Your task to perform on an android device: Go to internet settings Image 0: 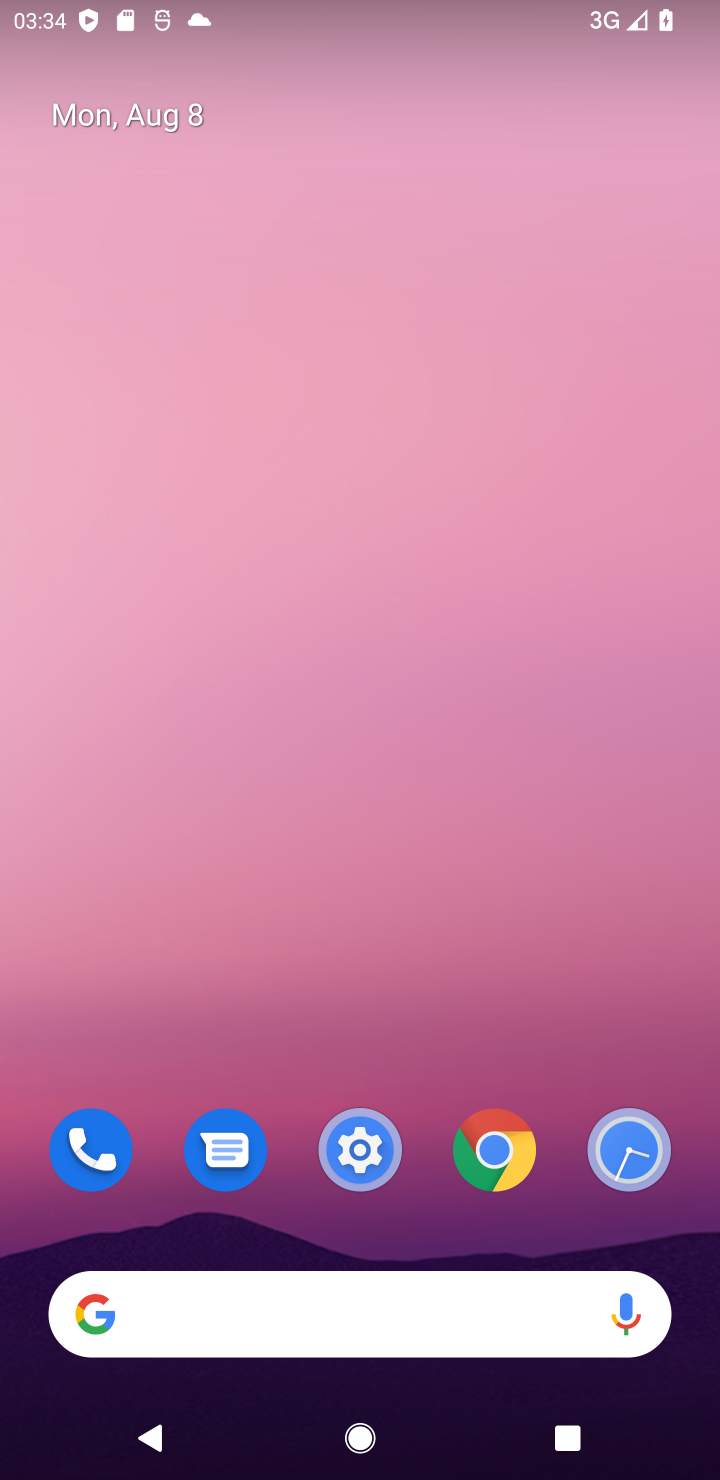
Step 0: click (380, 1177)
Your task to perform on an android device: Go to internet settings Image 1: 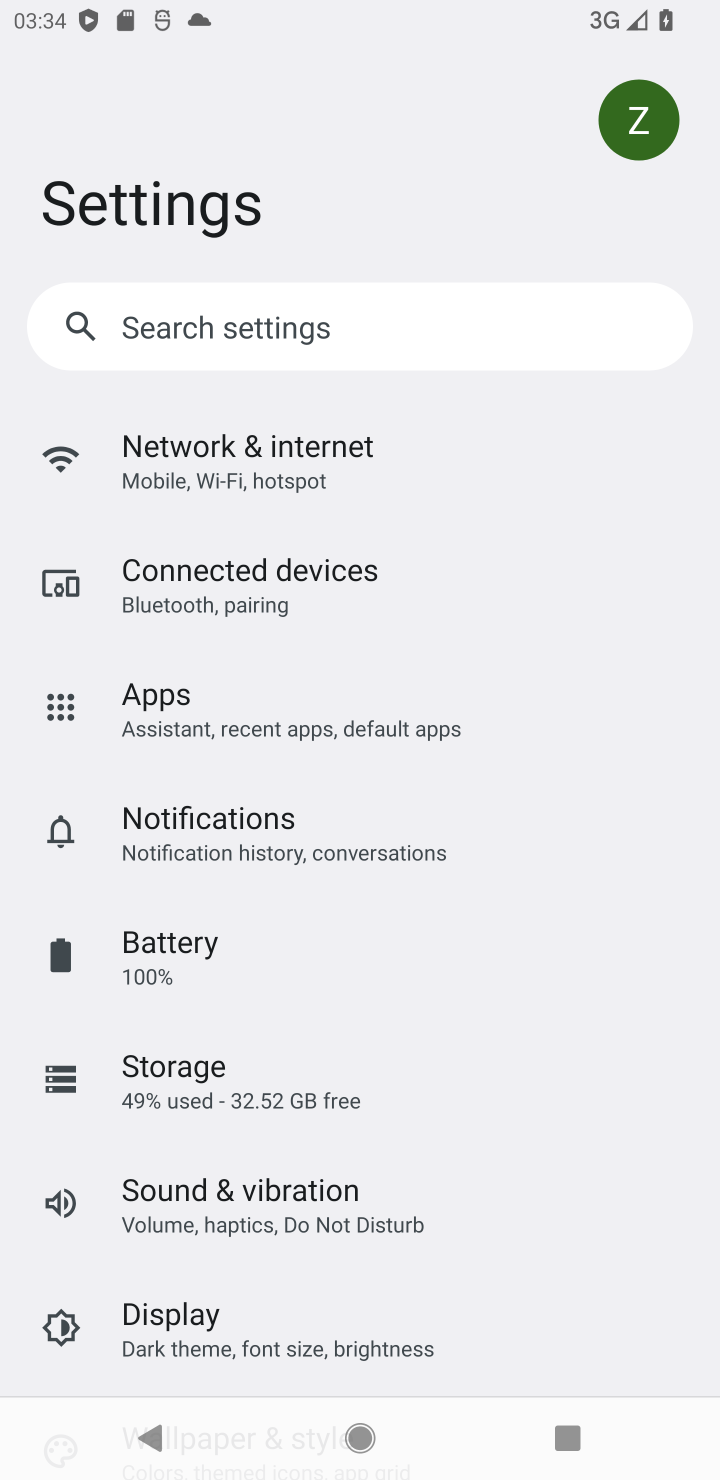
Step 1: click (243, 450)
Your task to perform on an android device: Go to internet settings Image 2: 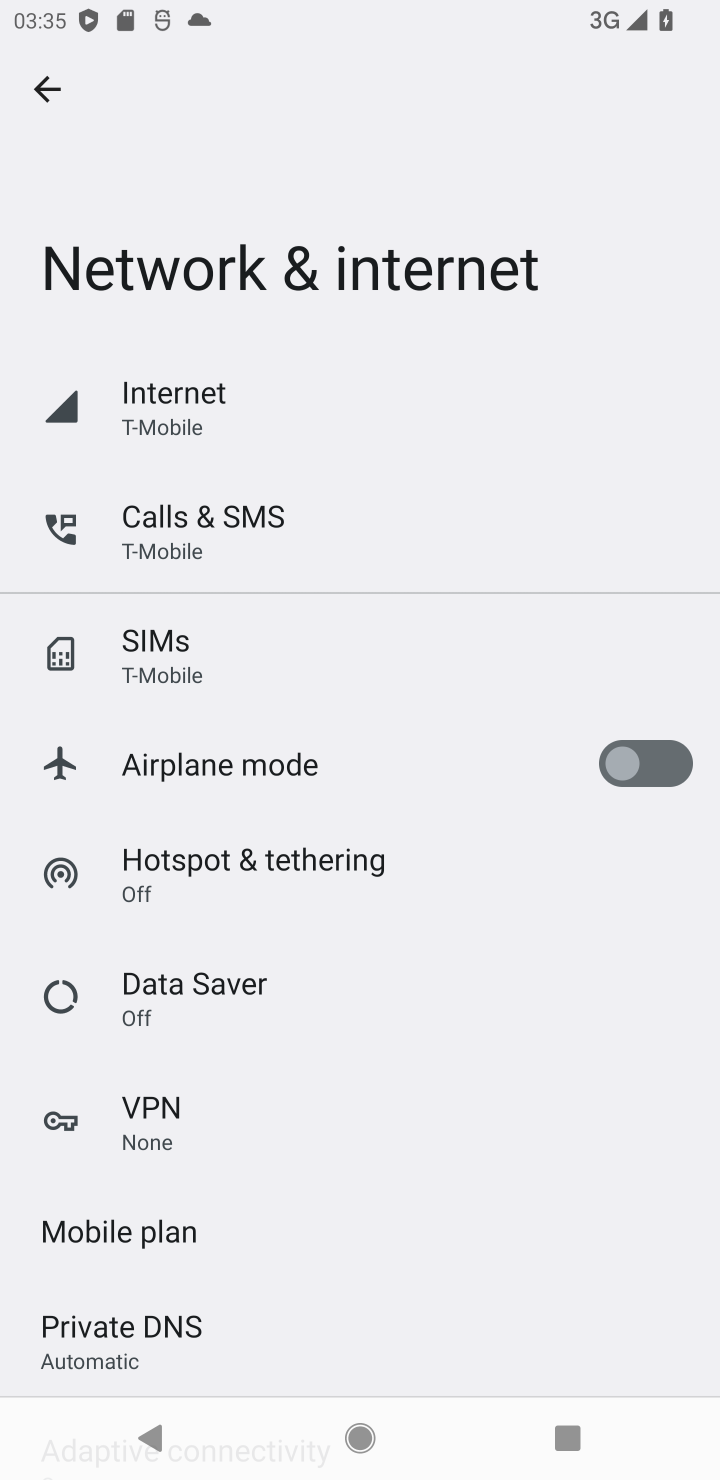
Step 2: click (227, 393)
Your task to perform on an android device: Go to internet settings Image 3: 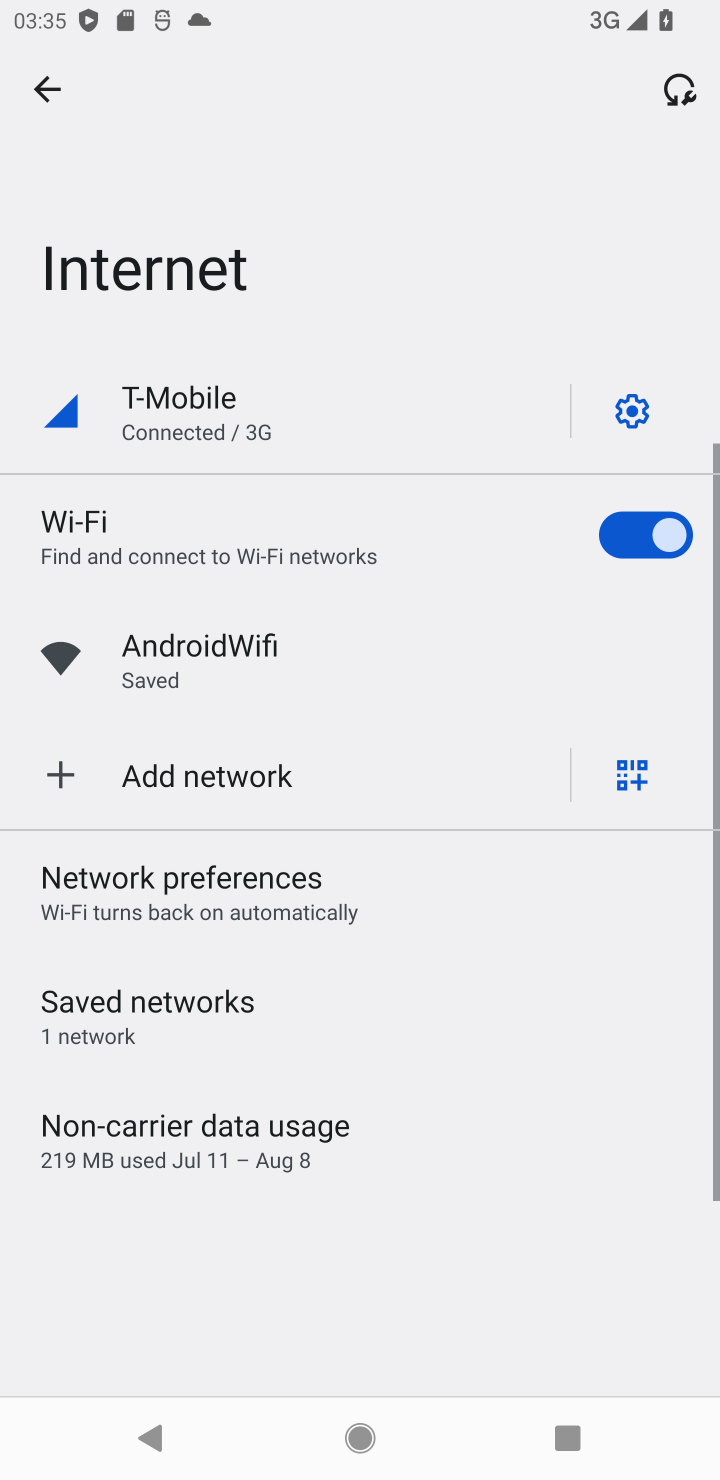
Step 3: task complete